Your task to perform on an android device: refresh tabs in the chrome app Image 0: 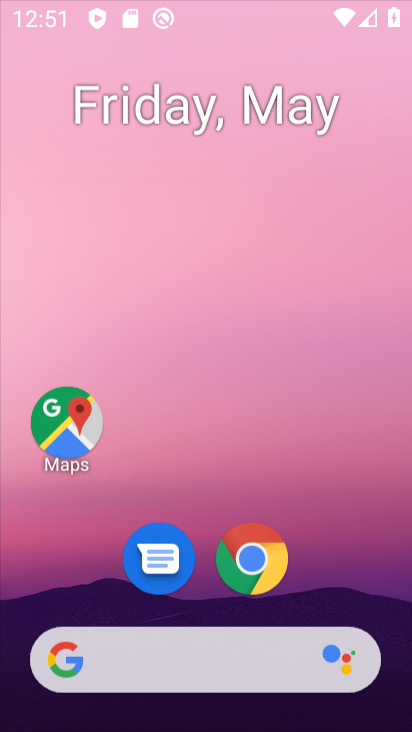
Step 0: click (281, 103)
Your task to perform on an android device: refresh tabs in the chrome app Image 1: 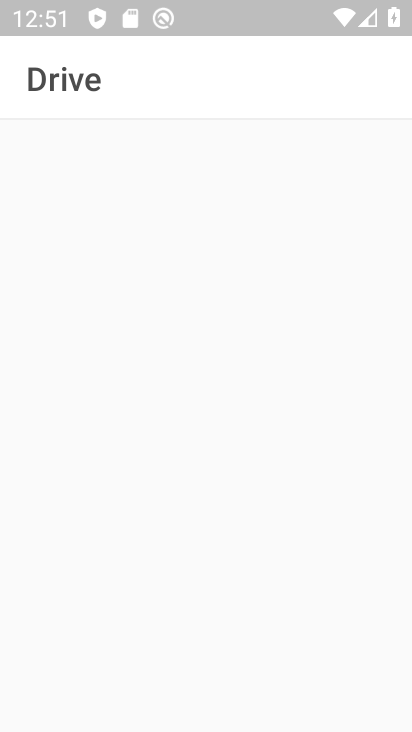
Step 1: press home button
Your task to perform on an android device: refresh tabs in the chrome app Image 2: 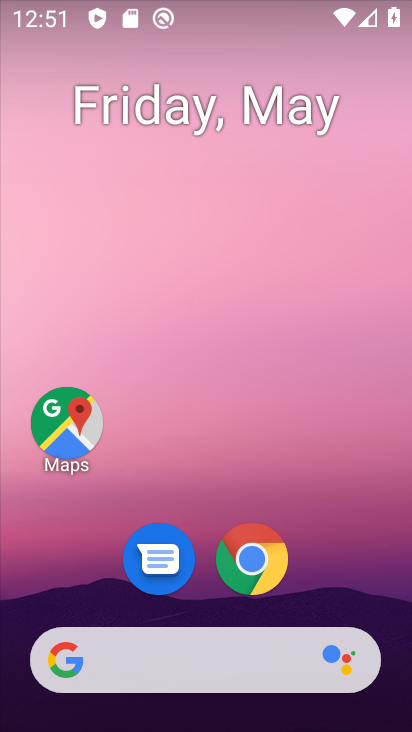
Step 2: click (245, 564)
Your task to perform on an android device: refresh tabs in the chrome app Image 3: 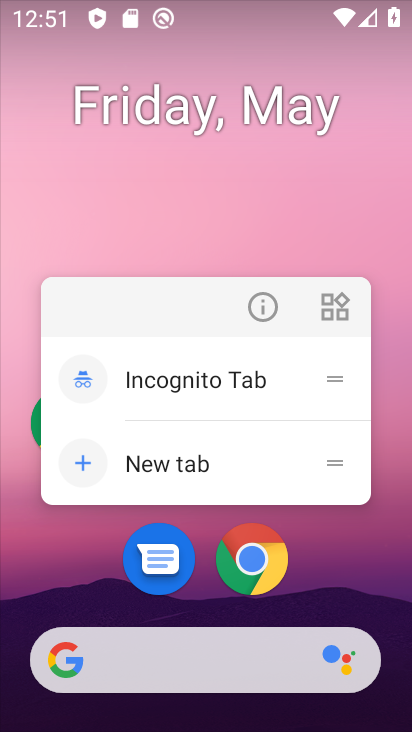
Step 3: click (246, 559)
Your task to perform on an android device: refresh tabs in the chrome app Image 4: 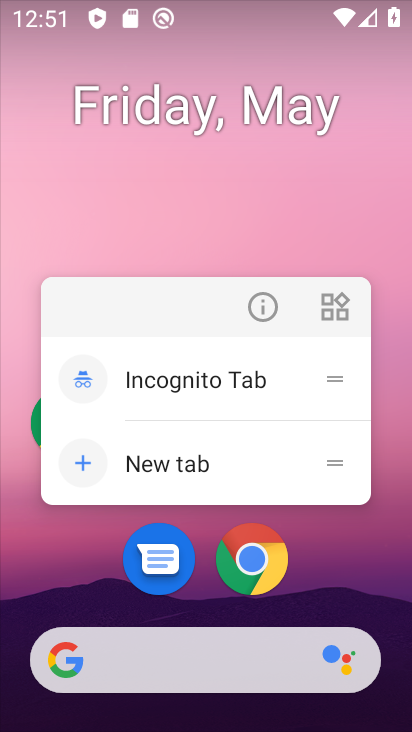
Step 4: click (291, 575)
Your task to perform on an android device: refresh tabs in the chrome app Image 5: 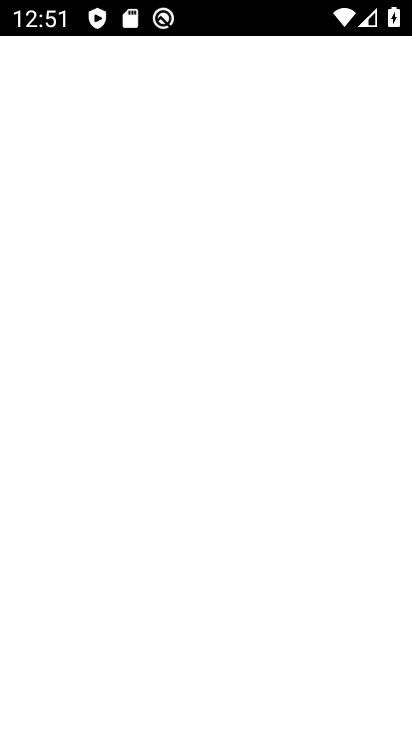
Step 5: drag from (334, 587) to (333, 495)
Your task to perform on an android device: refresh tabs in the chrome app Image 6: 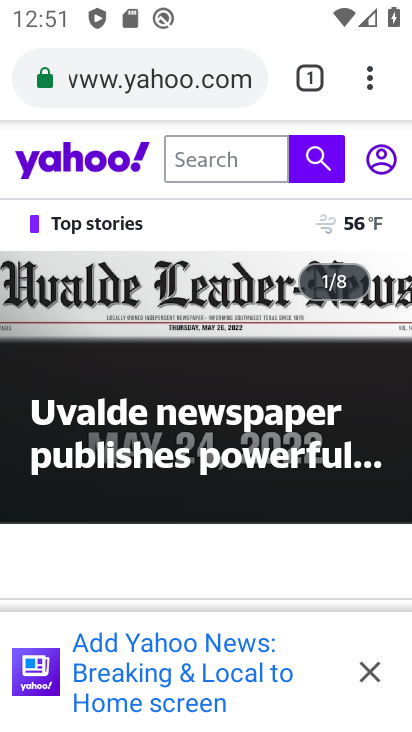
Step 6: drag from (380, 75) to (370, 111)
Your task to perform on an android device: refresh tabs in the chrome app Image 7: 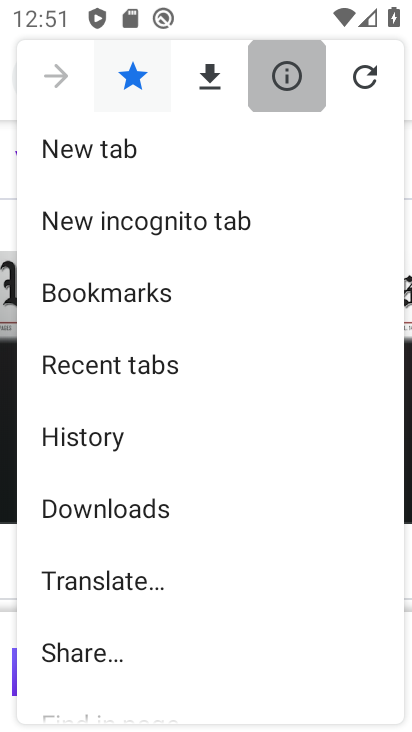
Step 7: click (374, 111)
Your task to perform on an android device: refresh tabs in the chrome app Image 8: 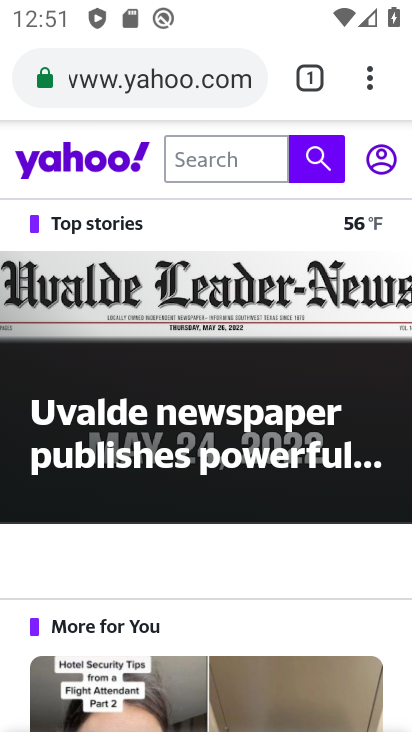
Step 8: task complete